Your task to perform on an android device: turn on wifi Image 0: 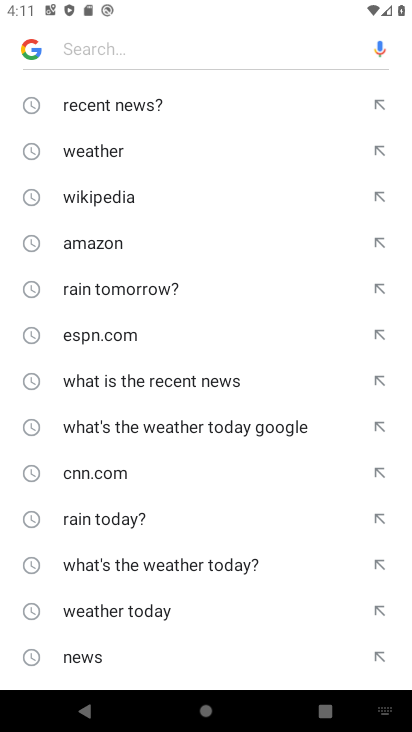
Step 0: press home button
Your task to perform on an android device: turn on wifi Image 1: 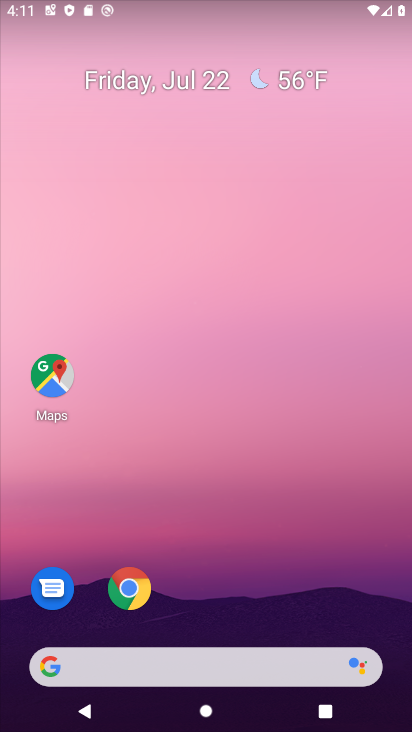
Step 1: drag from (231, 627) to (184, 245)
Your task to perform on an android device: turn on wifi Image 2: 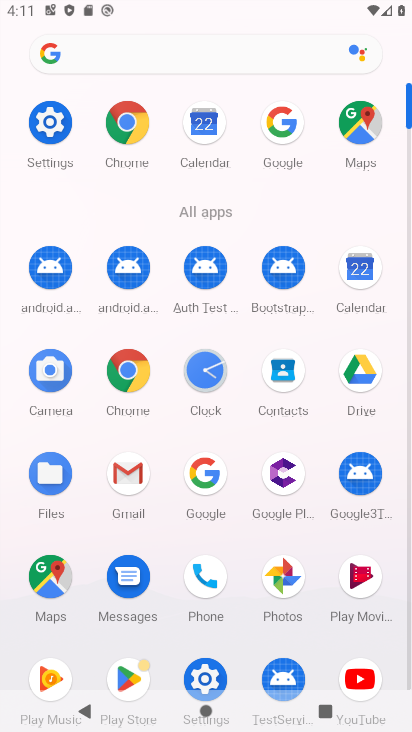
Step 2: click (60, 122)
Your task to perform on an android device: turn on wifi Image 3: 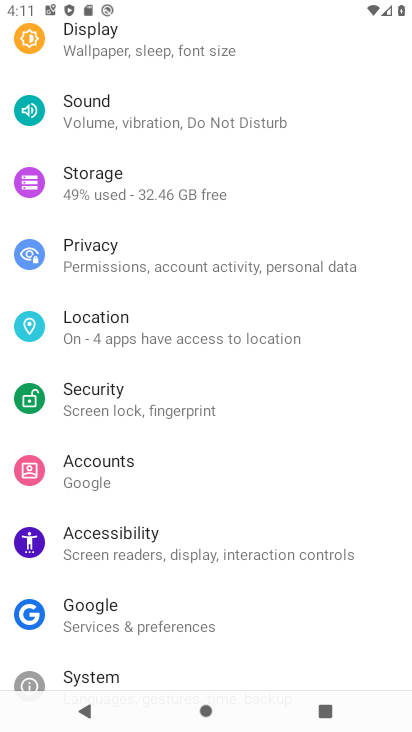
Step 3: drag from (129, 93) to (211, 559)
Your task to perform on an android device: turn on wifi Image 4: 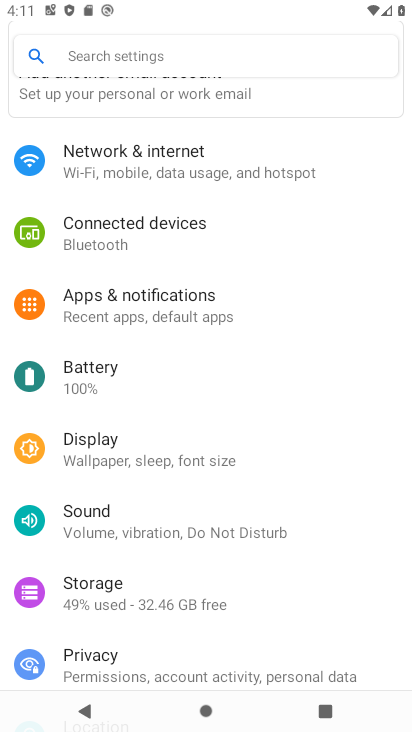
Step 4: click (195, 172)
Your task to perform on an android device: turn on wifi Image 5: 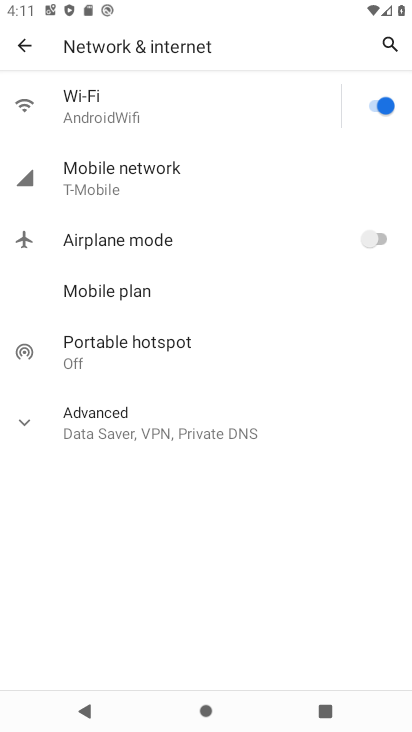
Step 5: task complete